Your task to perform on an android device: change notifications settings Image 0: 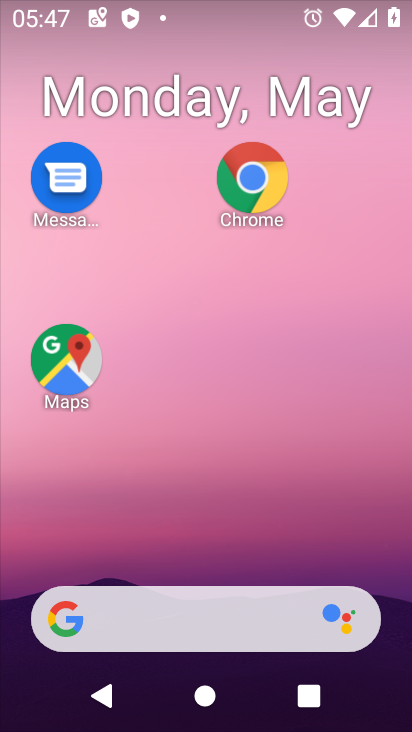
Step 0: drag from (173, 571) to (165, 6)
Your task to perform on an android device: change notifications settings Image 1: 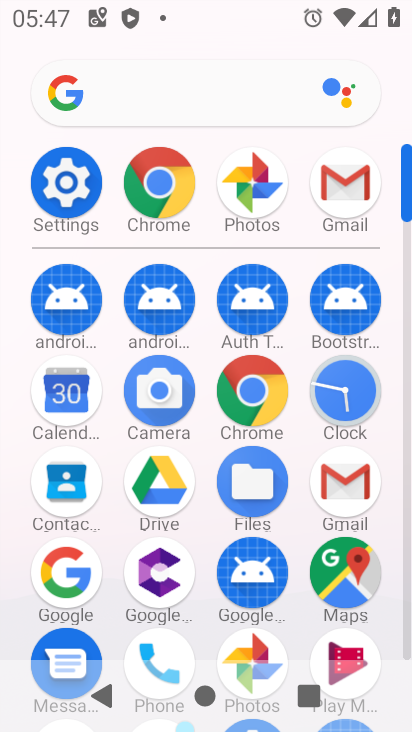
Step 1: click (61, 182)
Your task to perform on an android device: change notifications settings Image 2: 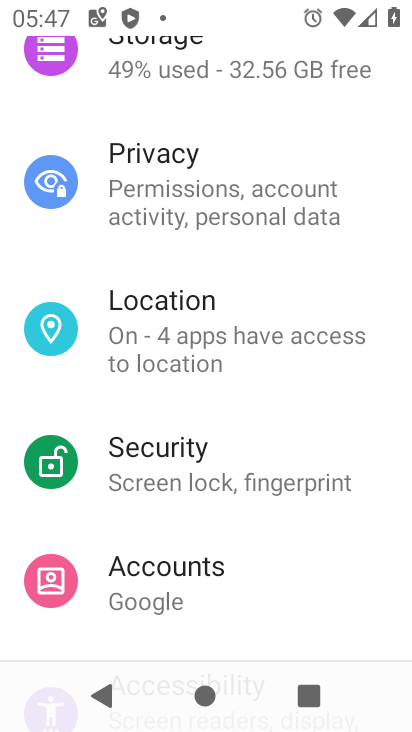
Step 2: drag from (216, 212) to (211, 564)
Your task to perform on an android device: change notifications settings Image 3: 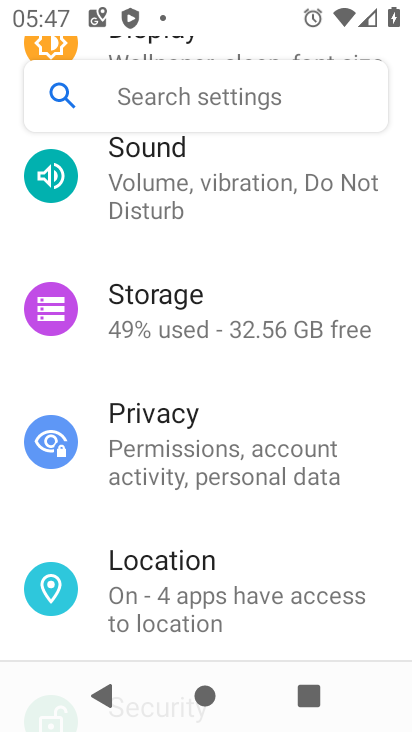
Step 3: drag from (200, 540) to (166, 57)
Your task to perform on an android device: change notifications settings Image 4: 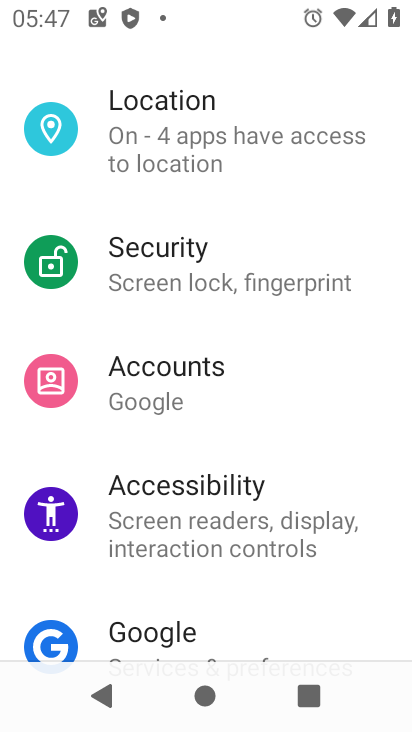
Step 4: drag from (217, 195) to (213, 646)
Your task to perform on an android device: change notifications settings Image 5: 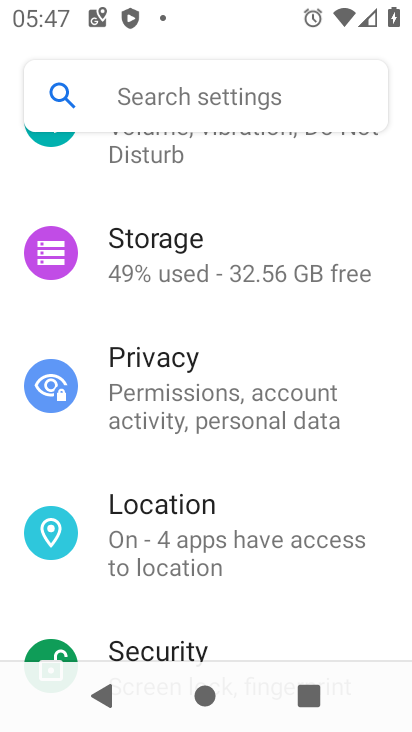
Step 5: drag from (200, 222) to (188, 631)
Your task to perform on an android device: change notifications settings Image 6: 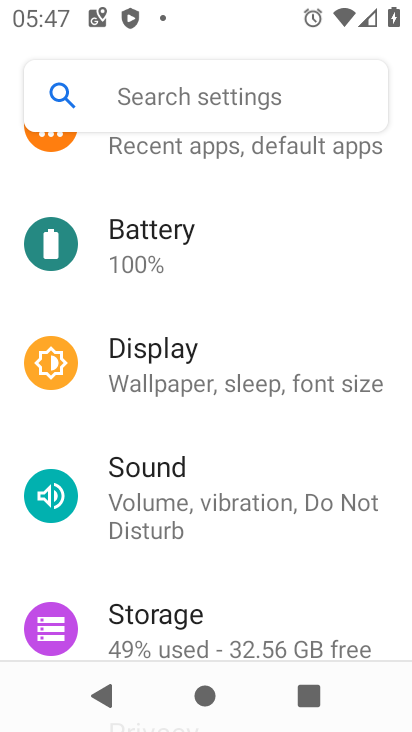
Step 6: drag from (178, 278) to (165, 678)
Your task to perform on an android device: change notifications settings Image 7: 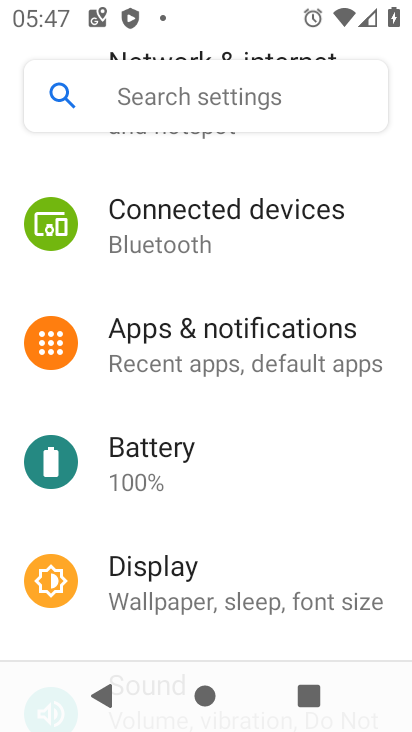
Step 7: click (157, 358)
Your task to perform on an android device: change notifications settings Image 8: 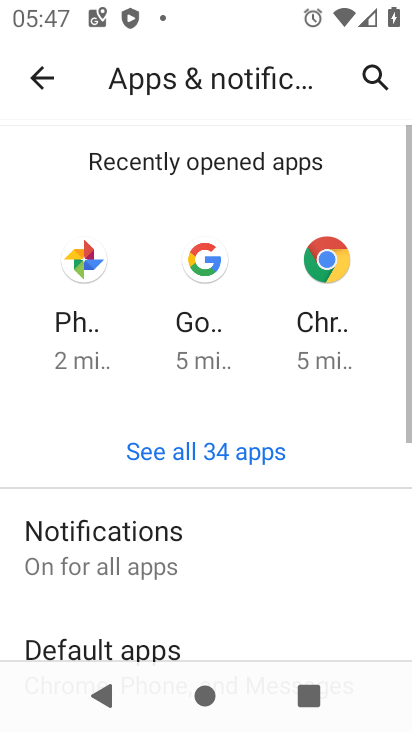
Step 8: click (65, 571)
Your task to perform on an android device: change notifications settings Image 9: 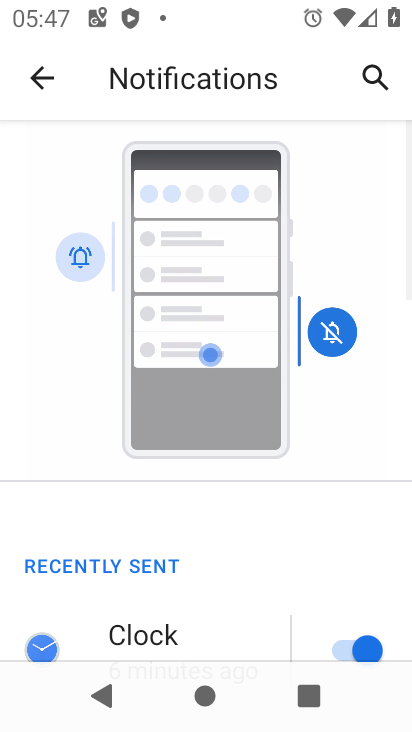
Step 9: drag from (187, 584) to (186, 141)
Your task to perform on an android device: change notifications settings Image 10: 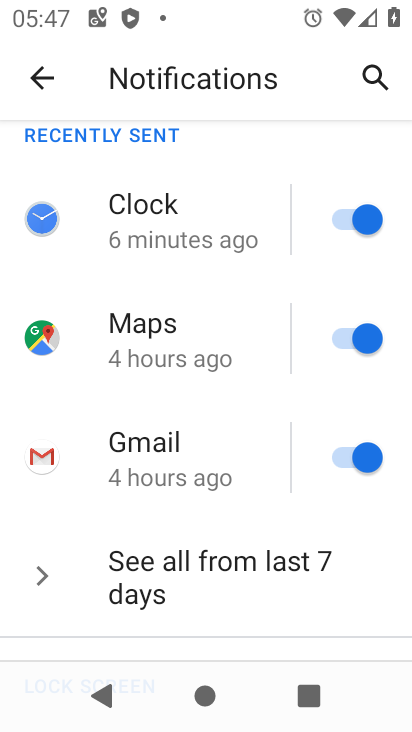
Step 10: click (185, 212)
Your task to perform on an android device: change notifications settings Image 11: 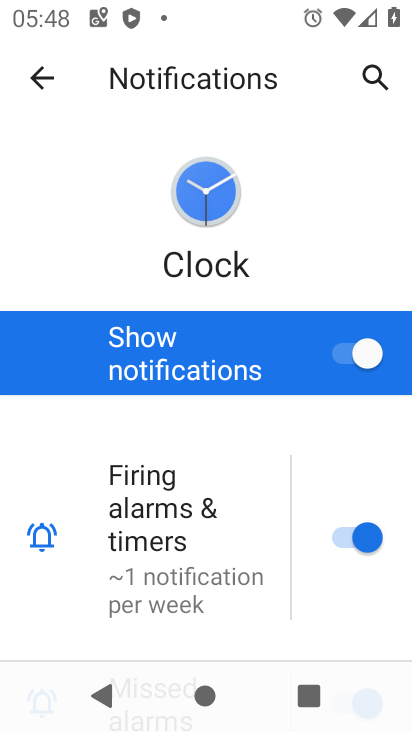
Step 11: click (40, 77)
Your task to perform on an android device: change notifications settings Image 12: 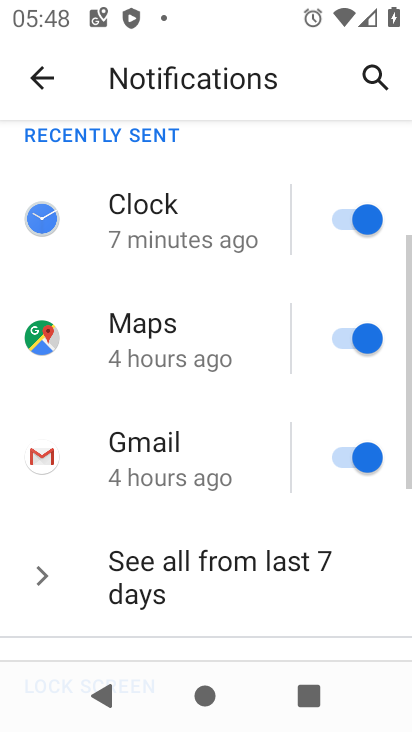
Step 12: drag from (231, 585) to (224, 235)
Your task to perform on an android device: change notifications settings Image 13: 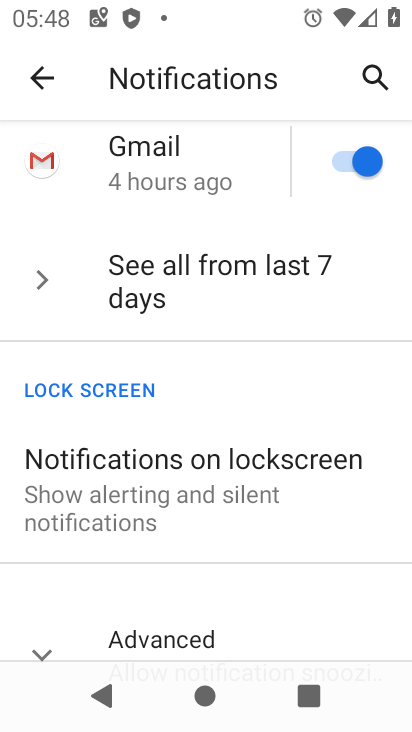
Step 13: click (146, 635)
Your task to perform on an android device: change notifications settings Image 14: 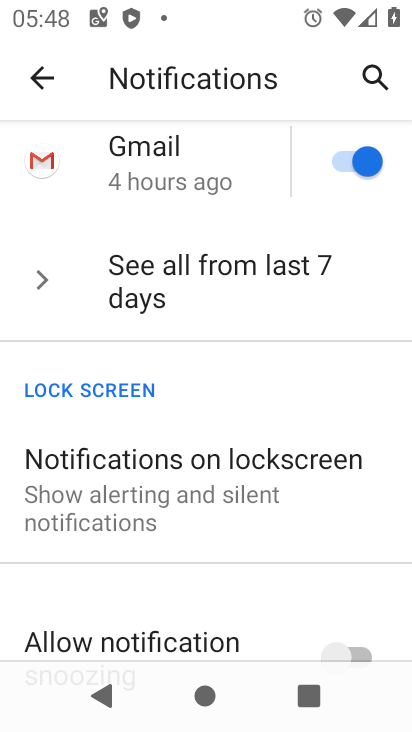
Step 14: drag from (155, 455) to (189, 200)
Your task to perform on an android device: change notifications settings Image 15: 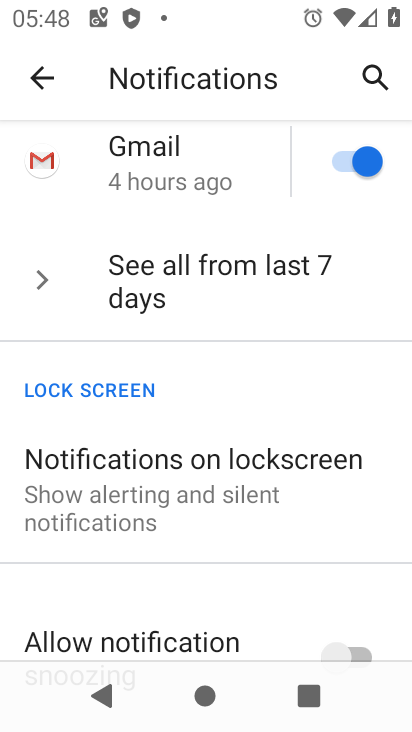
Step 15: click (160, 508)
Your task to perform on an android device: change notifications settings Image 16: 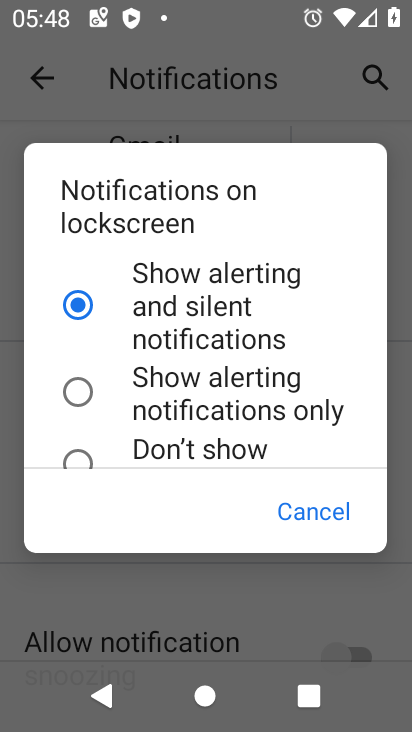
Step 16: click (76, 458)
Your task to perform on an android device: change notifications settings Image 17: 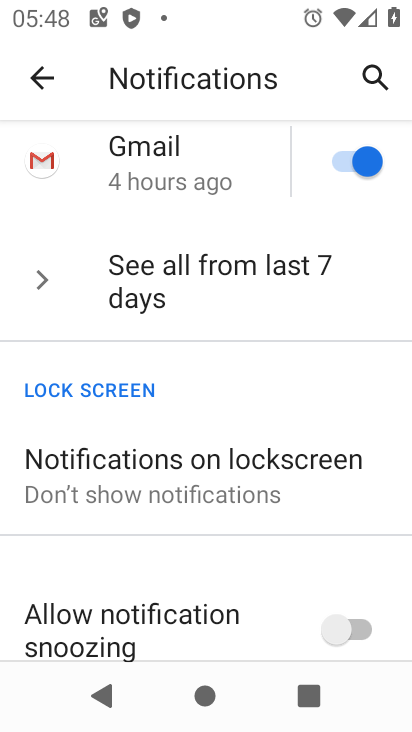
Step 17: task complete